Your task to perform on an android device: open app "Microsoft Outlook" Image 0: 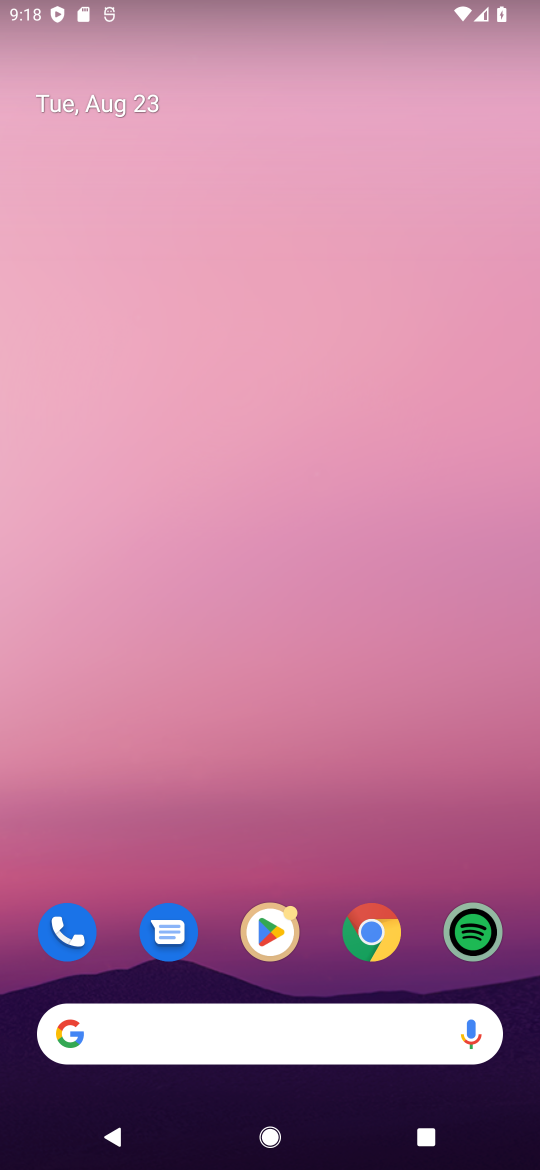
Step 0: click (282, 926)
Your task to perform on an android device: open app "Microsoft Outlook" Image 1: 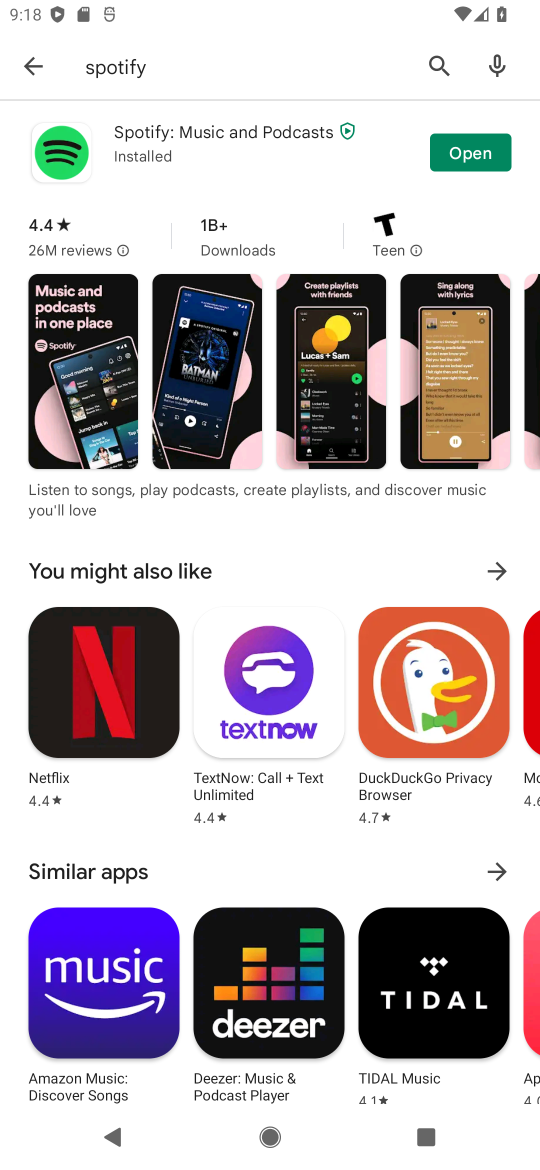
Step 1: click (435, 61)
Your task to perform on an android device: open app "Microsoft Outlook" Image 2: 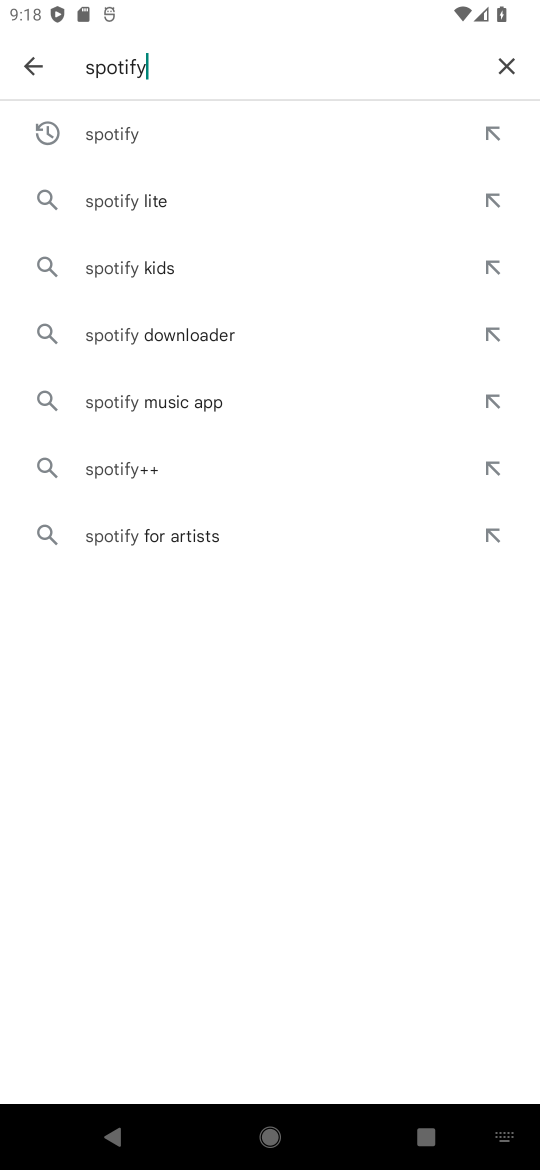
Step 2: click (519, 66)
Your task to perform on an android device: open app "Microsoft Outlook" Image 3: 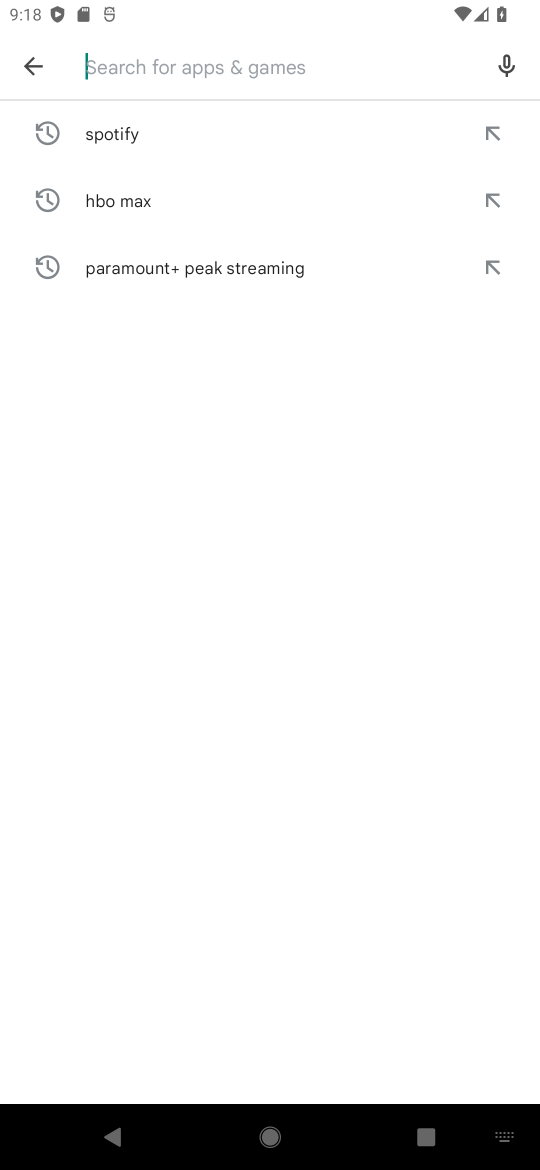
Step 3: click (170, 59)
Your task to perform on an android device: open app "Microsoft Outlook" Image 4: 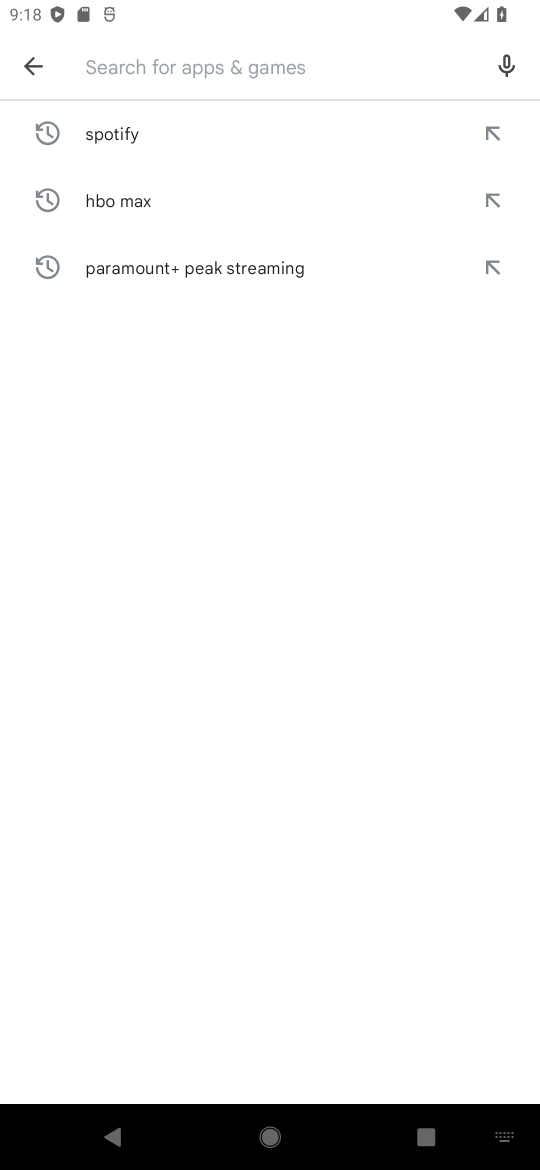
Step 4: type "Microsoft Outlook"
Your task to perform on an android device: open app "Microsoft Outlook" Image 5: 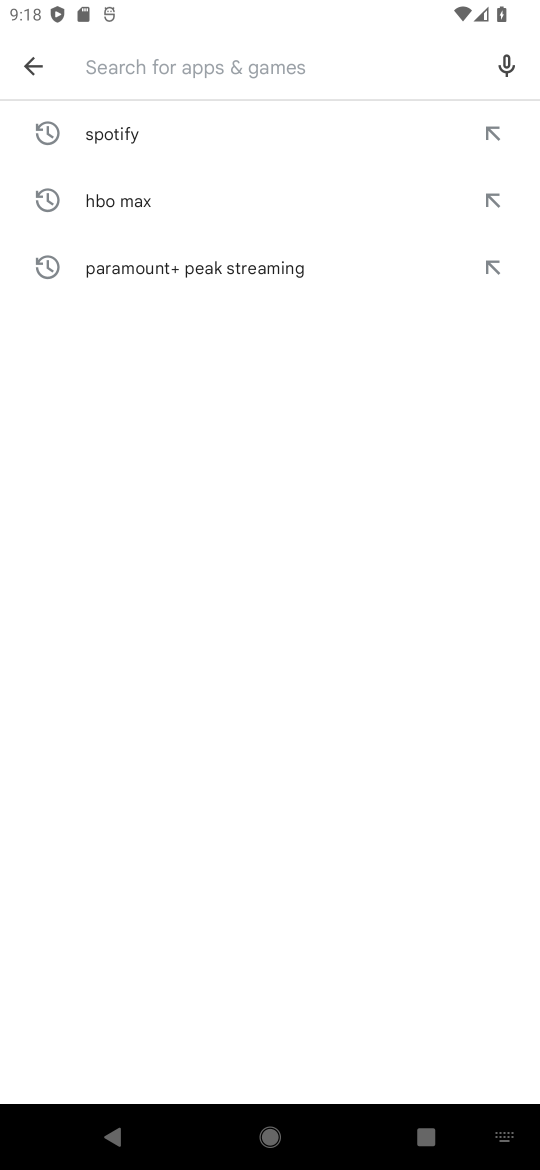
Step 5: click (294, 716)
Your task to perform on an android device: open app "Microsoft Outlook" Image 6: 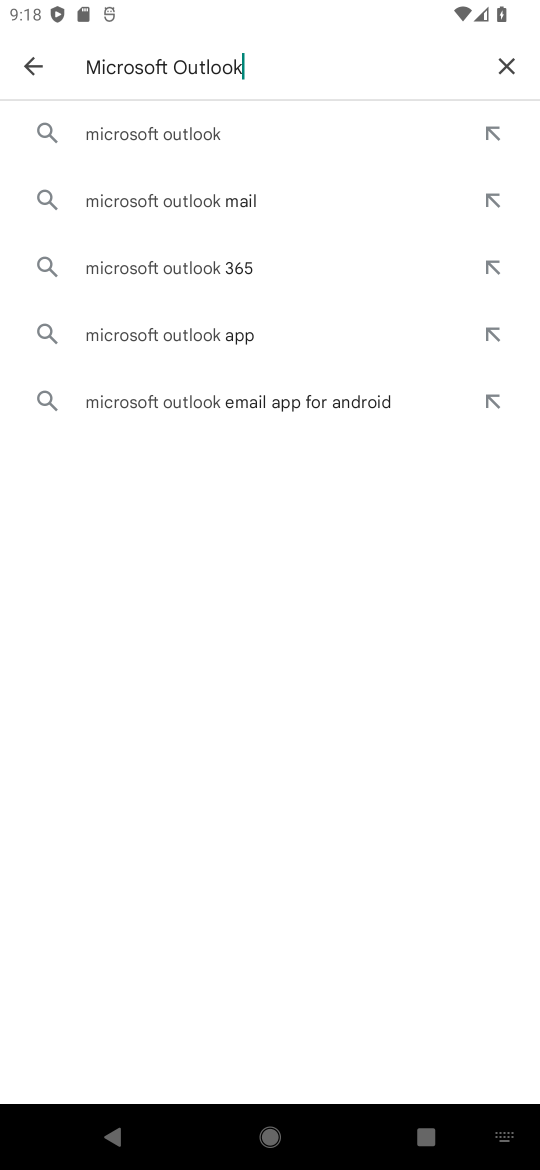
Step 6: click (179, 128)
Your task to perform on an android device: open app "Microsoft Outlook" Image 7: 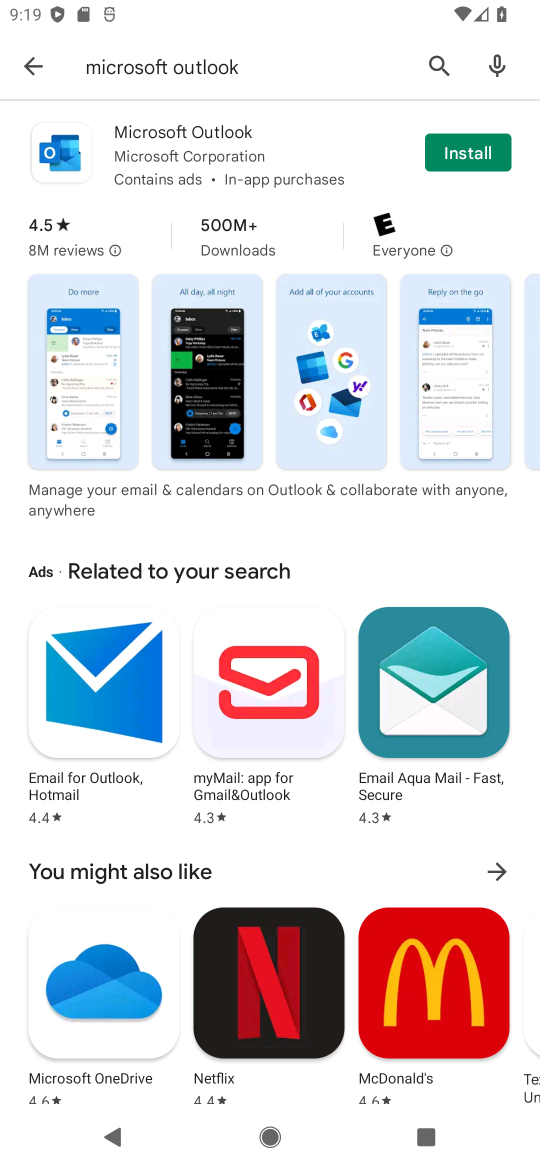
Step 7: task complete